Your task to perform on an android device: What is the recent news? Image 0: 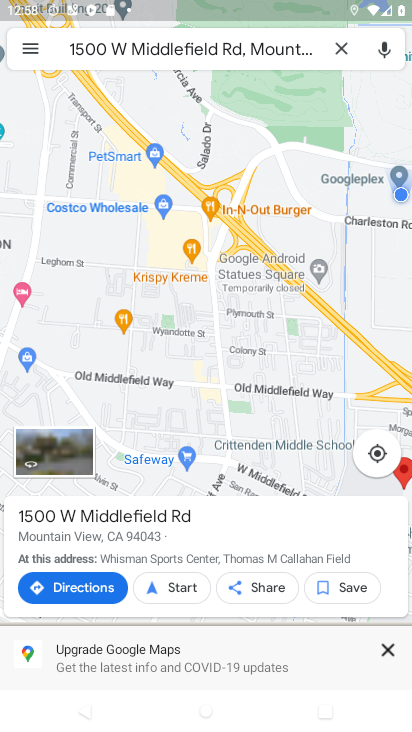
Step 0: press home button
Your task to perform on an android device: What is the recent news? Image 1: 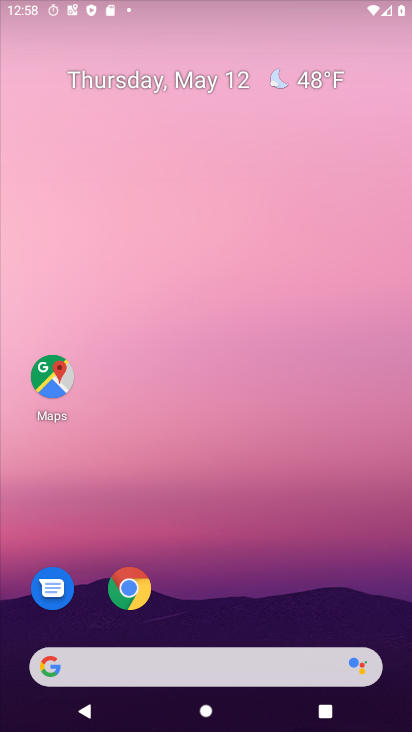
Step 1: drag from (211, 597) to (228, 54)
Your task to perform on an android device: What is the recent news? Image 2: 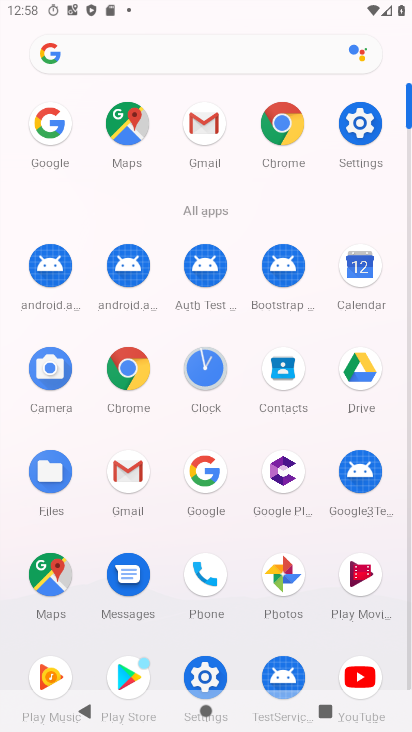
Step 2: click (47, 115)
Your task to perform on an android device: What is the recent news? Image 3: 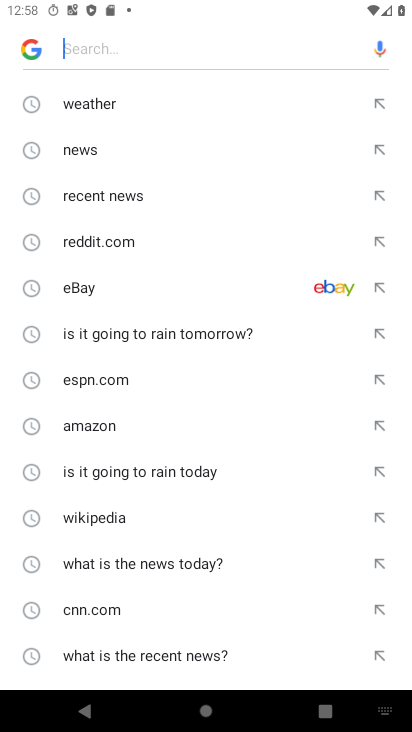
Step 3: click (113, 194)
Your task to perform on an android device: What is the recent news? Image 4: 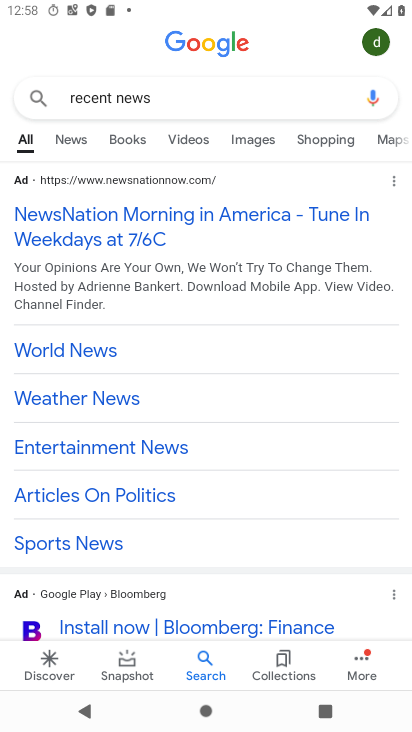
Step 4: task complete